Your task to perform on an android device: Open Wikipedia Image 0: 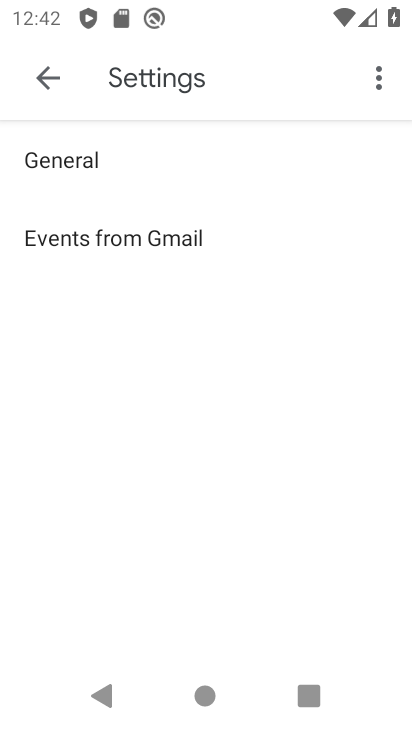
Step 0: press home button
Your task to perform on an android device: Open Wikipedia Image 1: 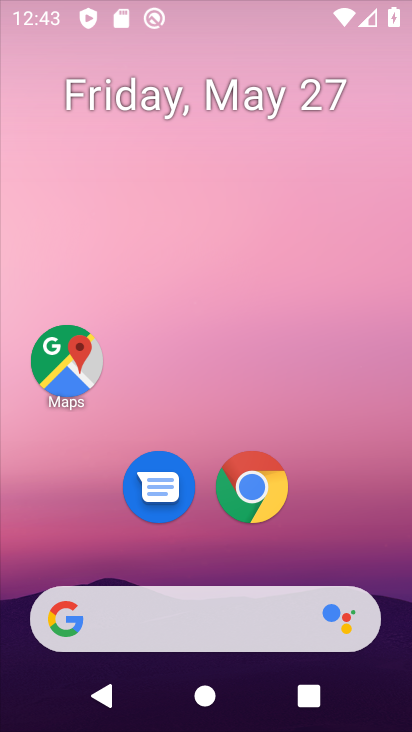
Step 1: drag from (154, 728) to (177, 161)
Your task to perform on an android device: Open Wikipedia Image 2: 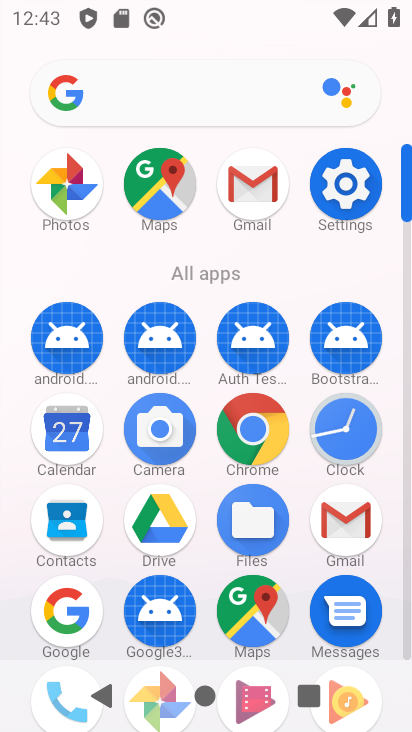
Step 2: click (245, 436)
Your task to perform on an android device: Open Wikipedia Image 3: 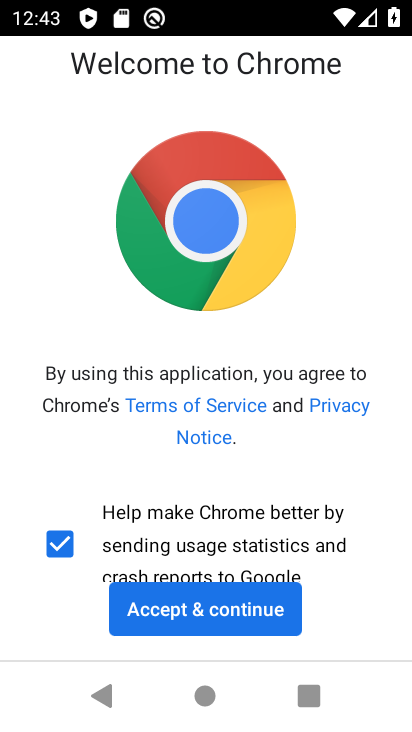
Step 3: click (287, 614)
Your task to perform on an android device: Open Wikipedia Image 4: 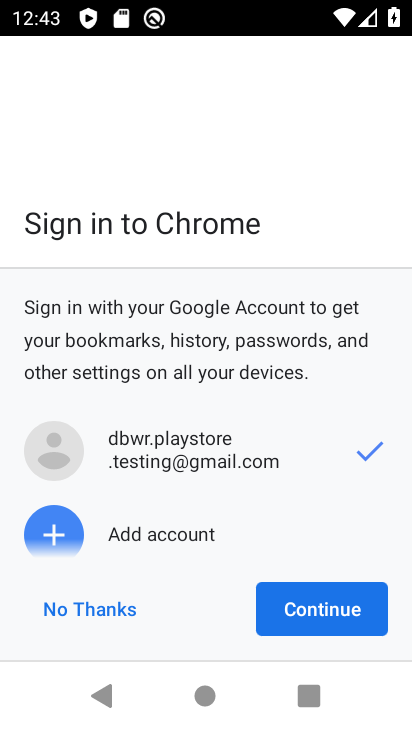
Step 4: click (289, 612)
Your task to perform on an android device: Open Wikipedia Image 5: 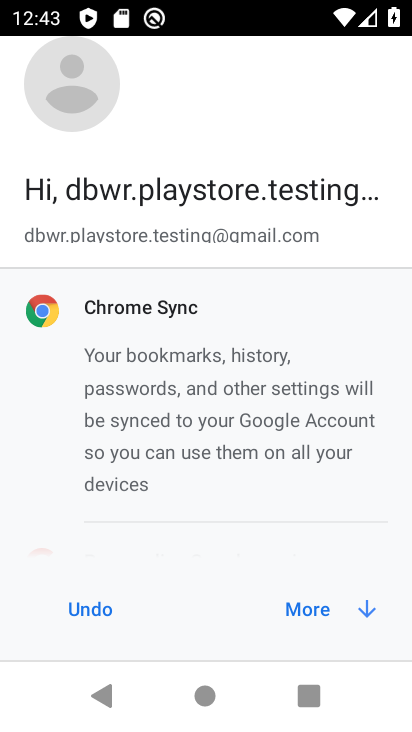
Step 5: click (319, 614)
Your task to perform on an android device: Open Wikipedia Image 6: 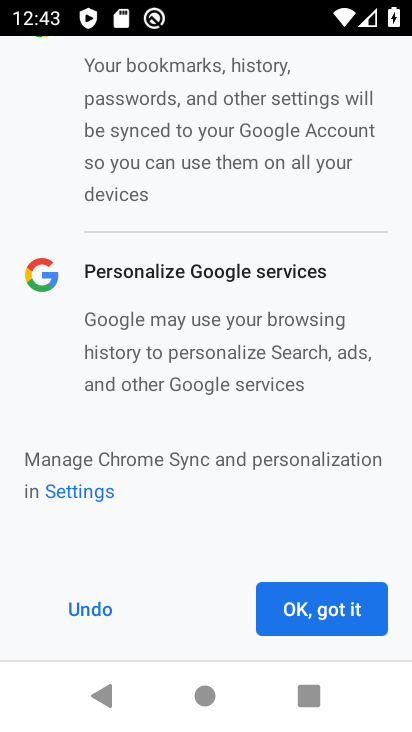
Step 6: click (319, 614)
Your task to perform on an android device: Open Wikipedia Image 7: 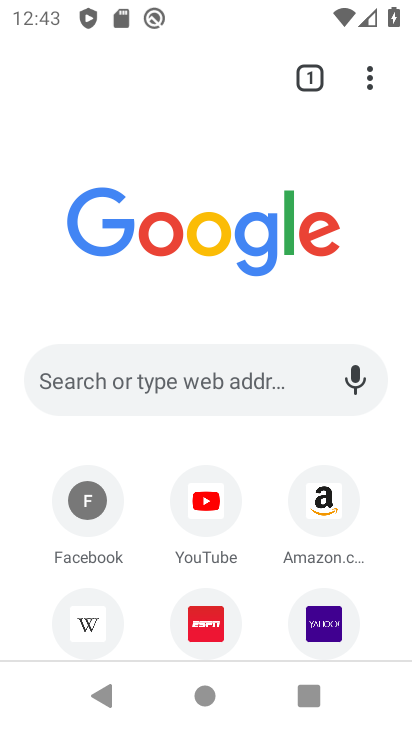
Step 7: click (74, 617)
Your task to perform on an android device: Open Wikipedia Image 8: 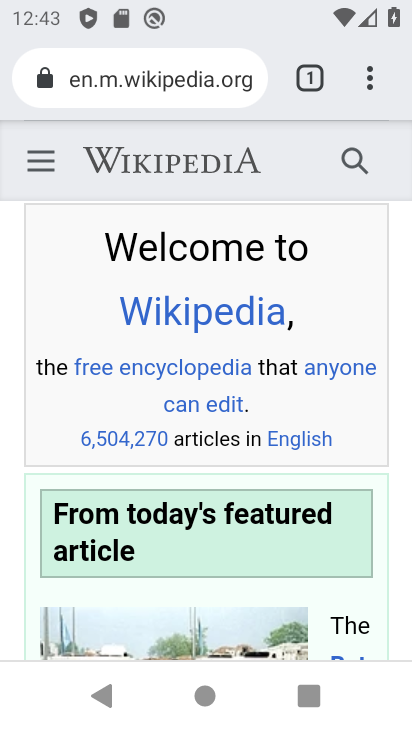
Step 8: task complete